Your task to perform on an android device: turn on improve location accuracy Image 0: 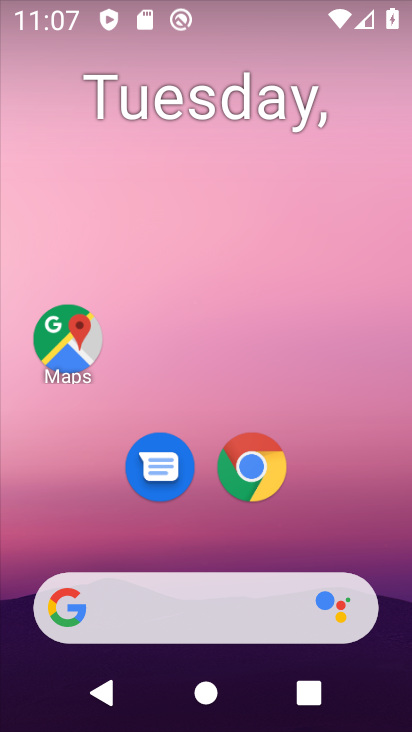
Step 0: drag from (173, 565) to (260, 127)
Your task to perform on an android device: turn on improve location accuracy Image 1: 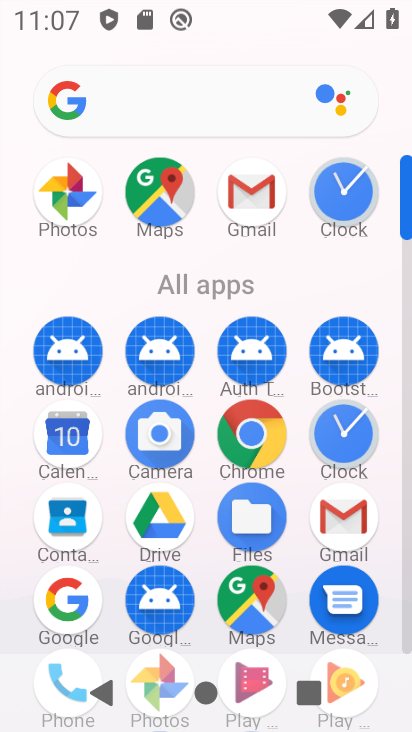
Step 1: drag from (216, 566) to (278, 309)
Your task to perform on an android device: turn on improve location accuracy Image 2: 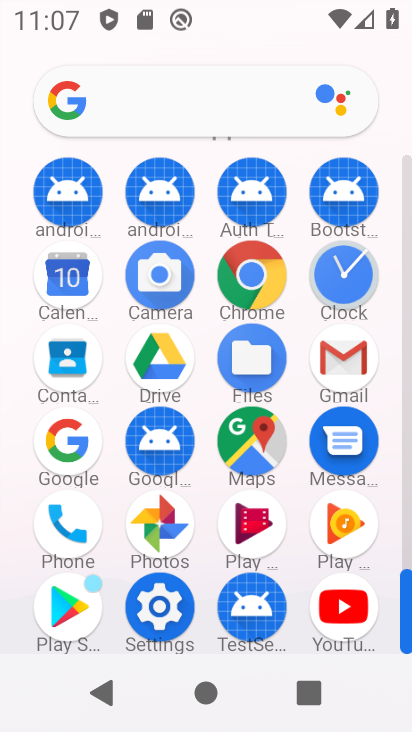
Step 2: click (158, 629)
Your task to perform on an android device: turn on improve location accuracy Image 3: 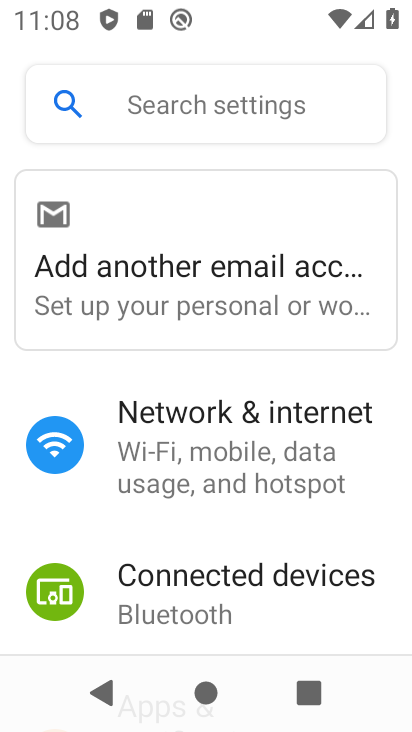
Step 3: drag from (191, 581) to (284, 163)
Your task to perform on an android device: turn on improve location accuracy Image 4: 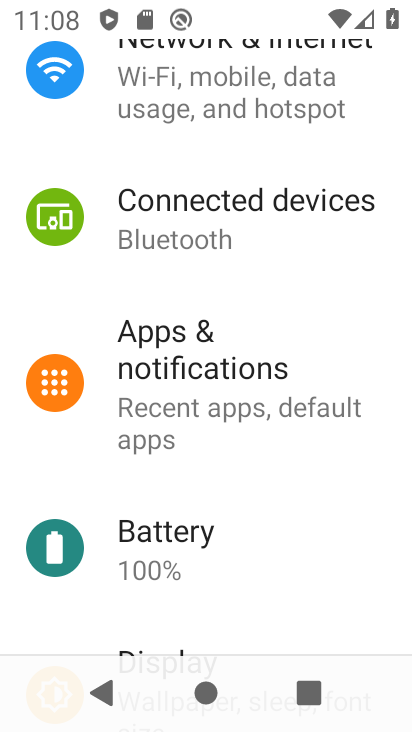
Step 4: drag from (211, 533) to (281, 266)
Your task to perform on an android device: turn on improve location accuracy Image 5: 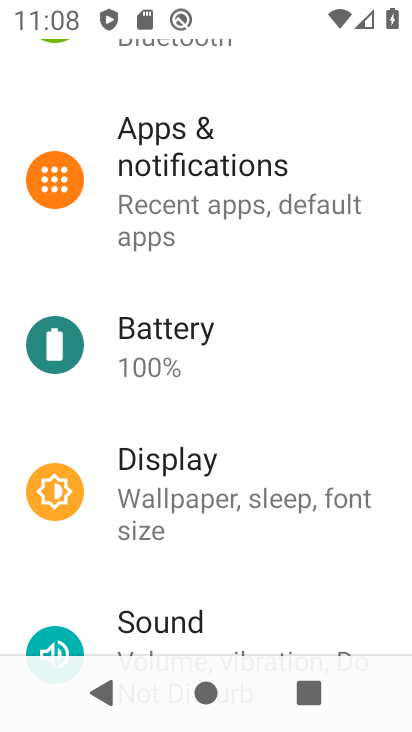
Step 5: drag from (201, 577) to (280, 192)
Your task to perform on an android device: turn on improve location accuracy Image 6: 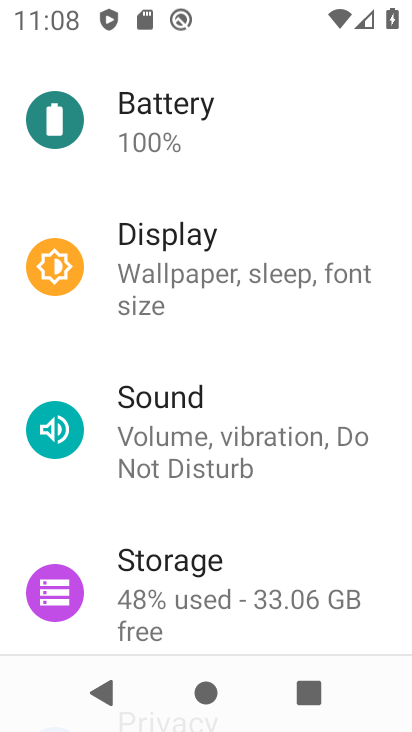
Step 6: drag from (198, 568) to (284, 203)
Your task to perform on an android device: turn on improve location accuracy Image 7: 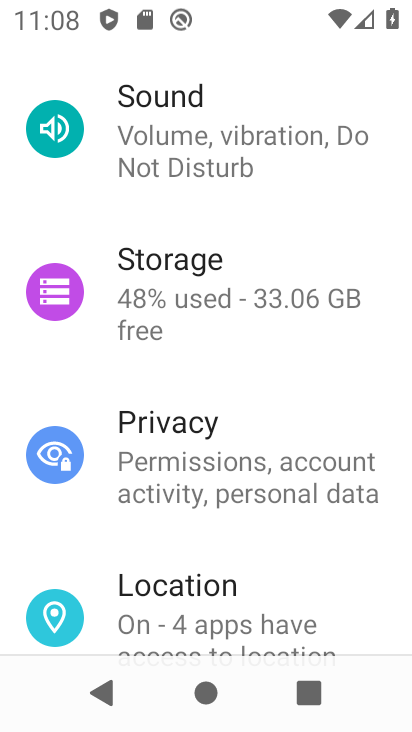
Step 7: drag from (183, 604) to (215, 434)
Your task to perform on an android device: turn on improve location accuracy Image 8: 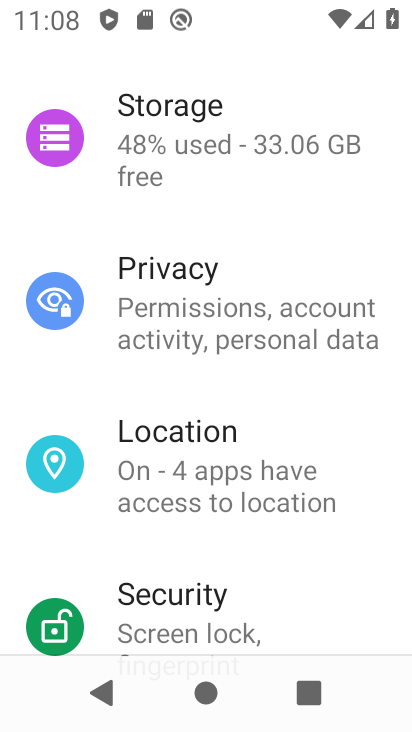
Step 8: click (208, 475)
Your task to perform on an android device: turn on improve location accuracy Image 9: 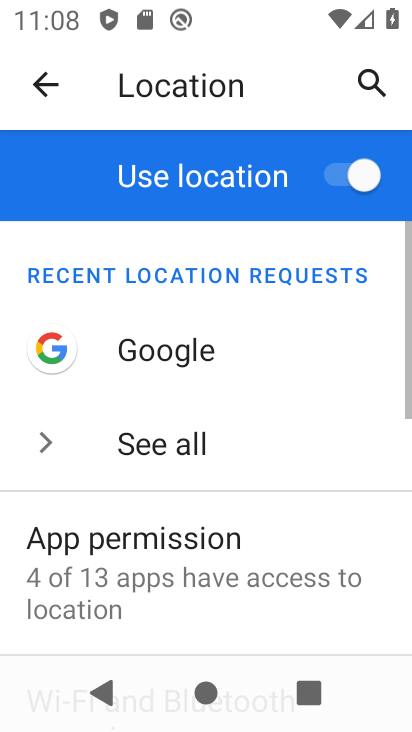
Step 9: drag from (150, 586) to (231, 289)
Your task to perform on an android device: turn on improve location accuracy Image 10: 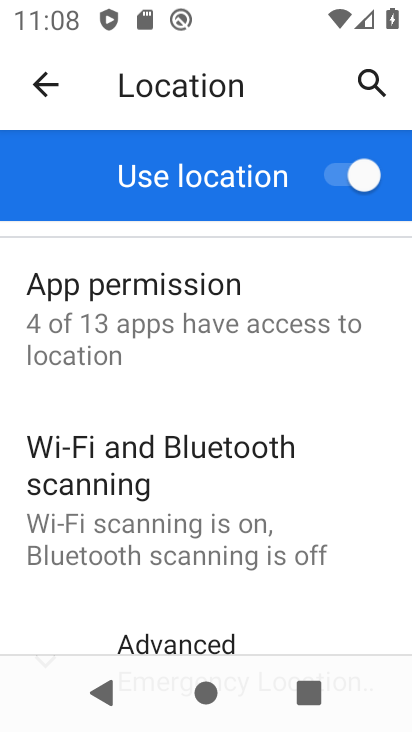
Step 10: drag from (131, 607) to (198, 387)
Your task to perform on an android device: turn on improve location accuracy Image 11: 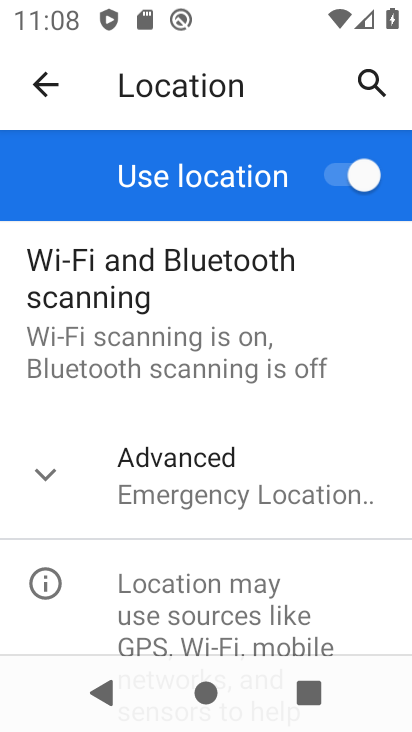
Step 11: click (174, 486)
Your task to perform on an android device: turn on improve location accuracy Image 12: 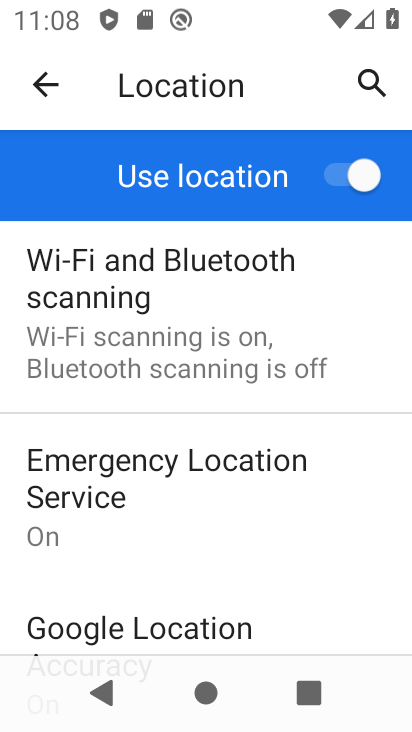
Step 12: drag from (230, 595) to (310, 290)
Your task to perform on an android device: turn on improve location accuracy Image 13: 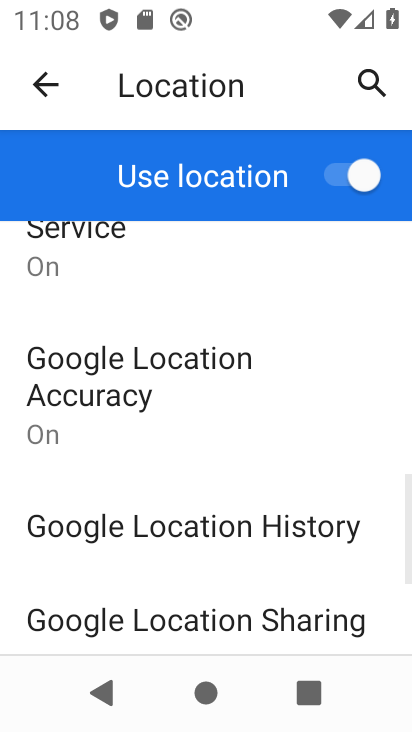
Step 13: drag from (221, 604) to (260, 398)
Your task to perform on an android device: turn on improve location accuracy Image 14: 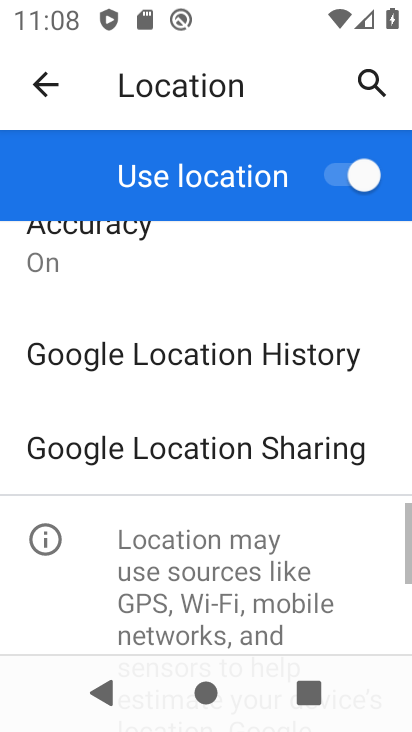
Step 14: drag from (253, 375) to (262, 607)
Your task to perform on an android device: turn on improve location accuracy Image 15: 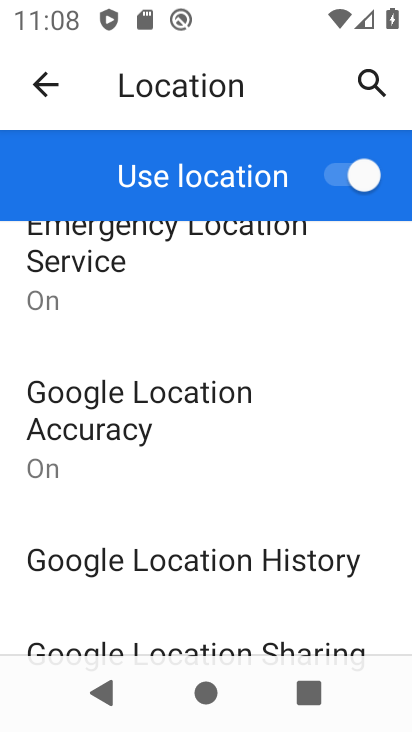
Step 15: click (212, 416)
Your task to perform on an android device: turn on improve location accuracy Image 16: 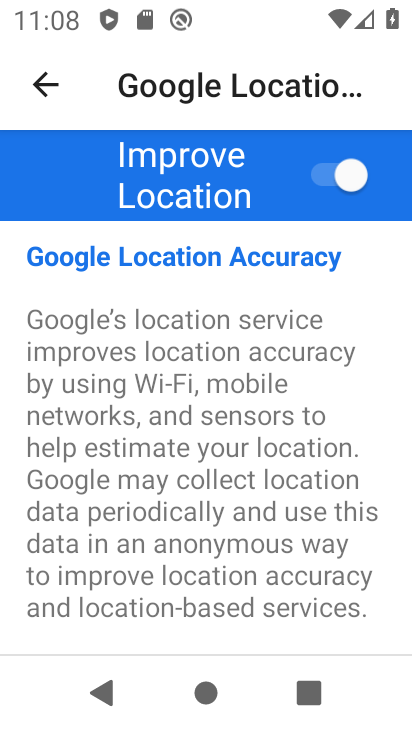
Step 16: task complete